Your task to perform on an android device: Search for logitech g502 on walmart, select the first entry, and add it to the cart. Image 0: 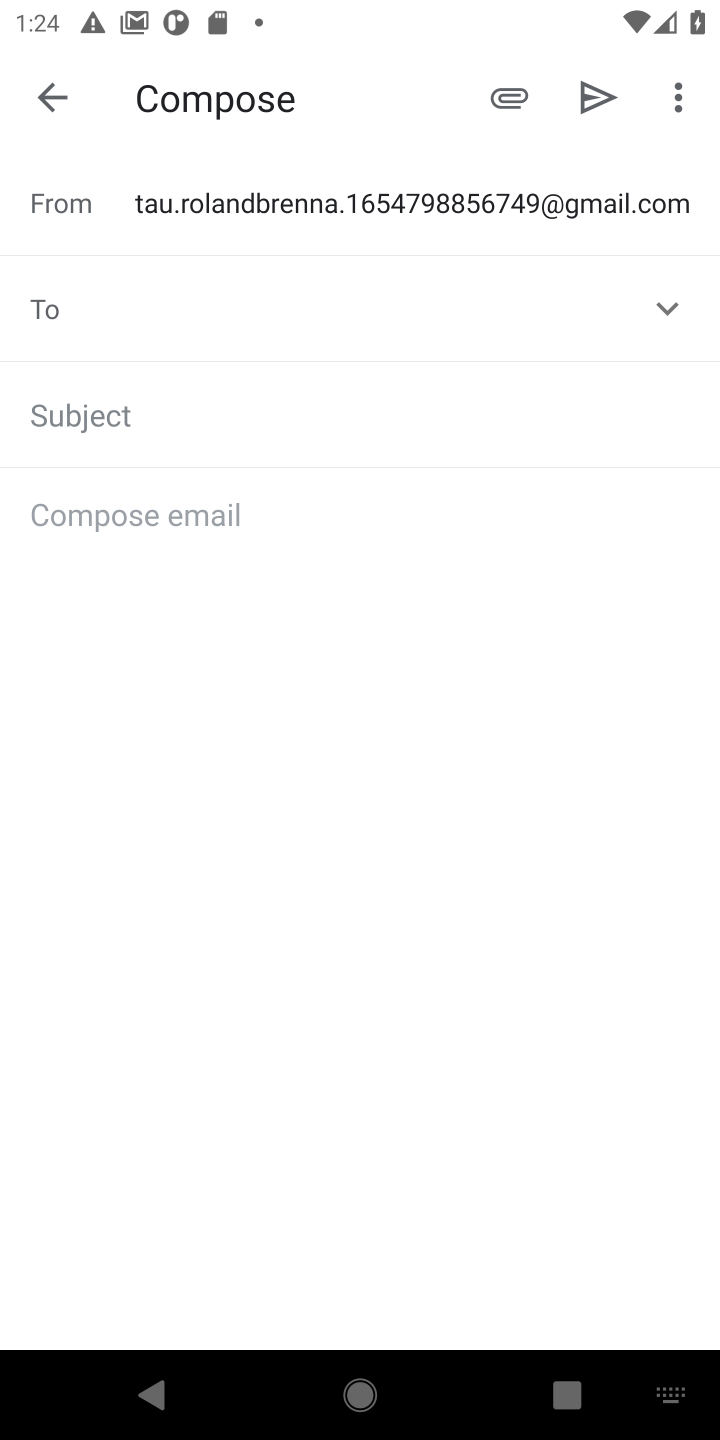
Step 0: press home button
Your task to perform on an android device: Search for logitech g502 on walmart, select the first entry, and add it to the cart. Image 1: 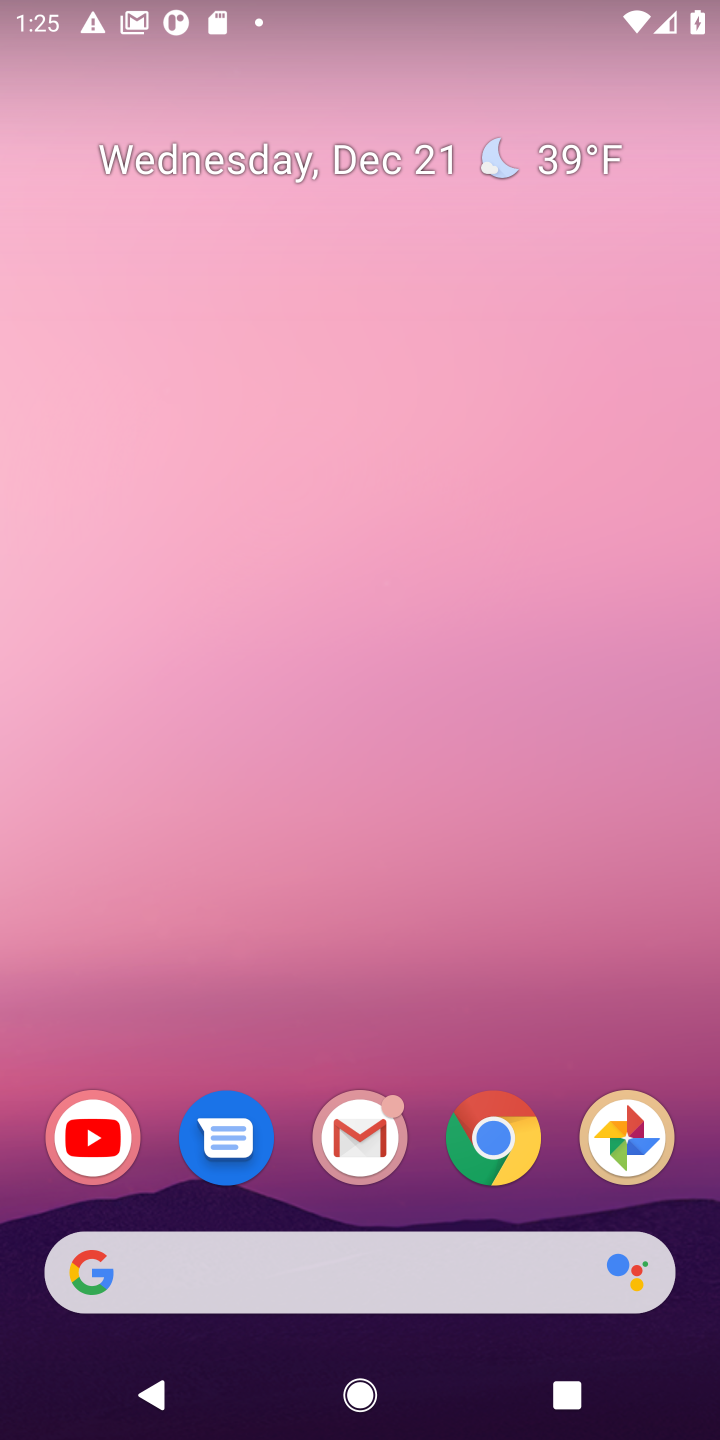
Step 1: click (501, 1134)
Your task to perform on an android device: Search for logitech g502 on walmart, select the first entry, and add it to the cart. Image 2: 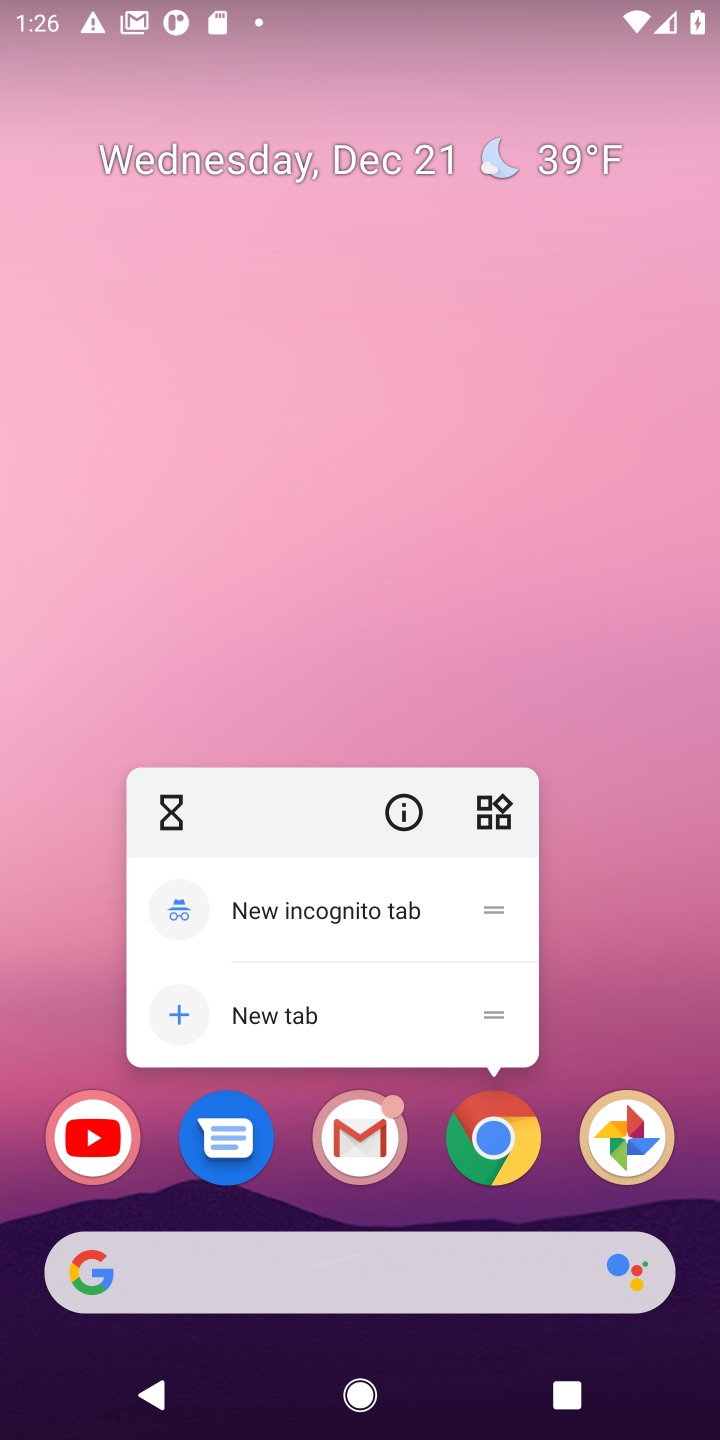
Step 2: click (492, 1119)
Your task to perform on an android device: Search for logitech g502 on walmart, select the first entry, and add it to the cart. Image 3: 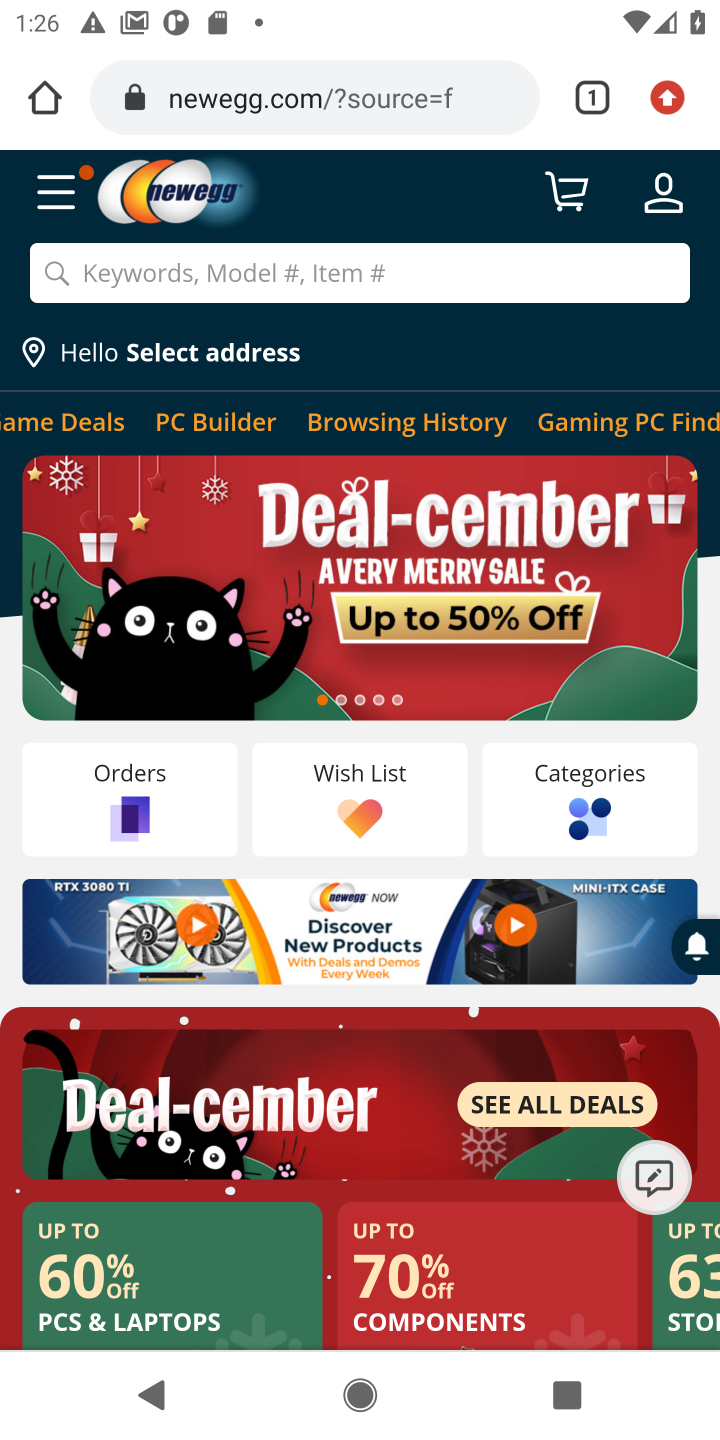
Step 3: click (400, 96)
Your task to perform on an android device: Search for logitech g502 on walmart, select the first entry, and add it to the cart. Image 4: 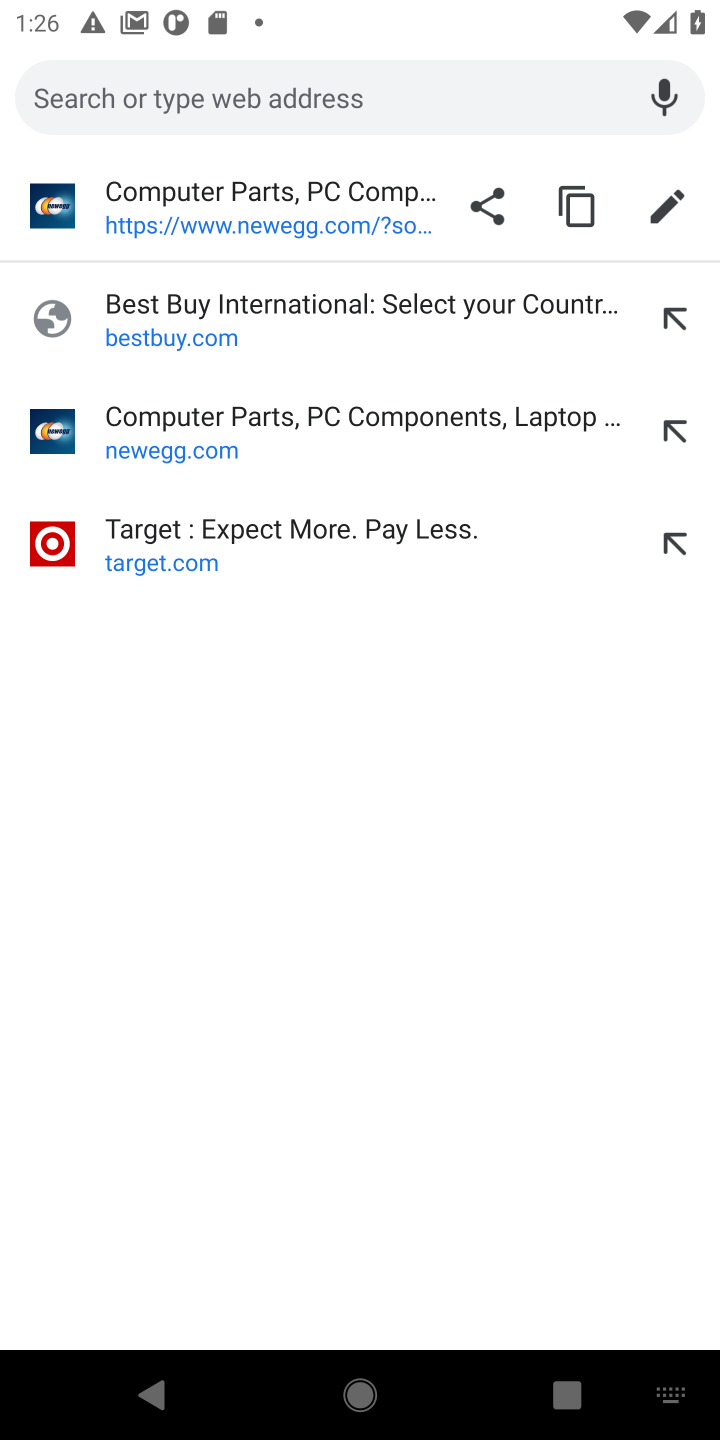
Step 4: type "walmart"
Your task to perform on an android device: Search for logitech g502 on walmart, select the first entry, and add it to the cart. Image 5: 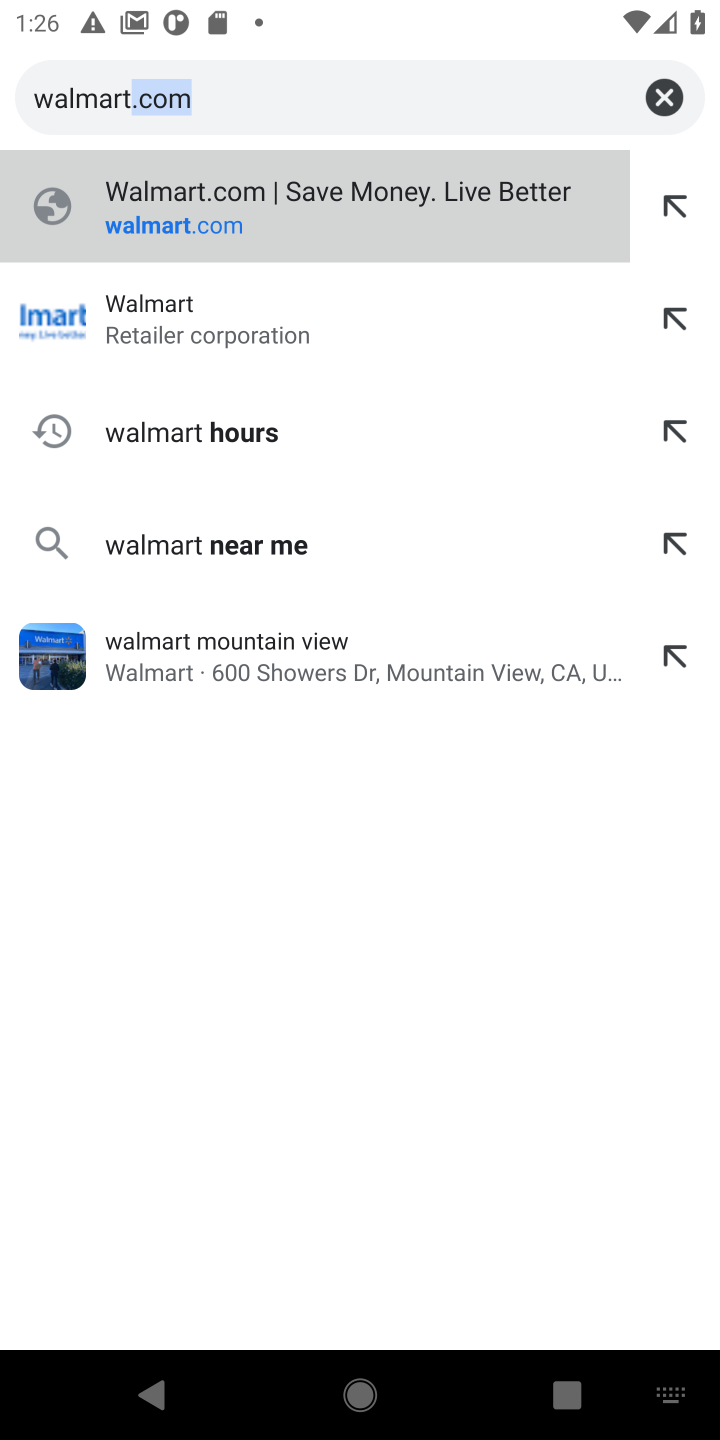
Step 5: click (227, 242)
Your task to perform on an android device: Search for logitech g502 on walmart, select the first entry, and add it to the cart. Image 6: 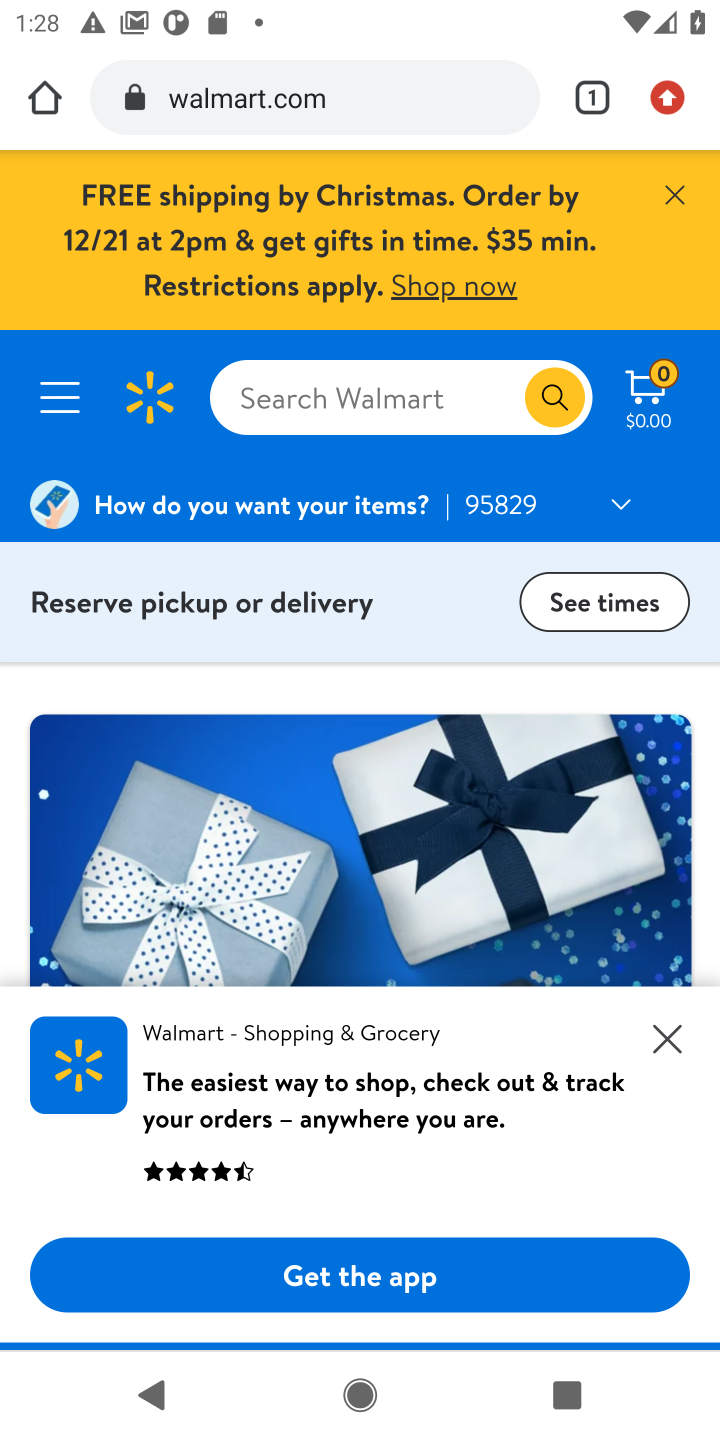
Step 6: click (673, 204)
Your task to perform on an android device: Search for logitech g502 on walmart, select the first entry, and add it to the cart. Image 7: 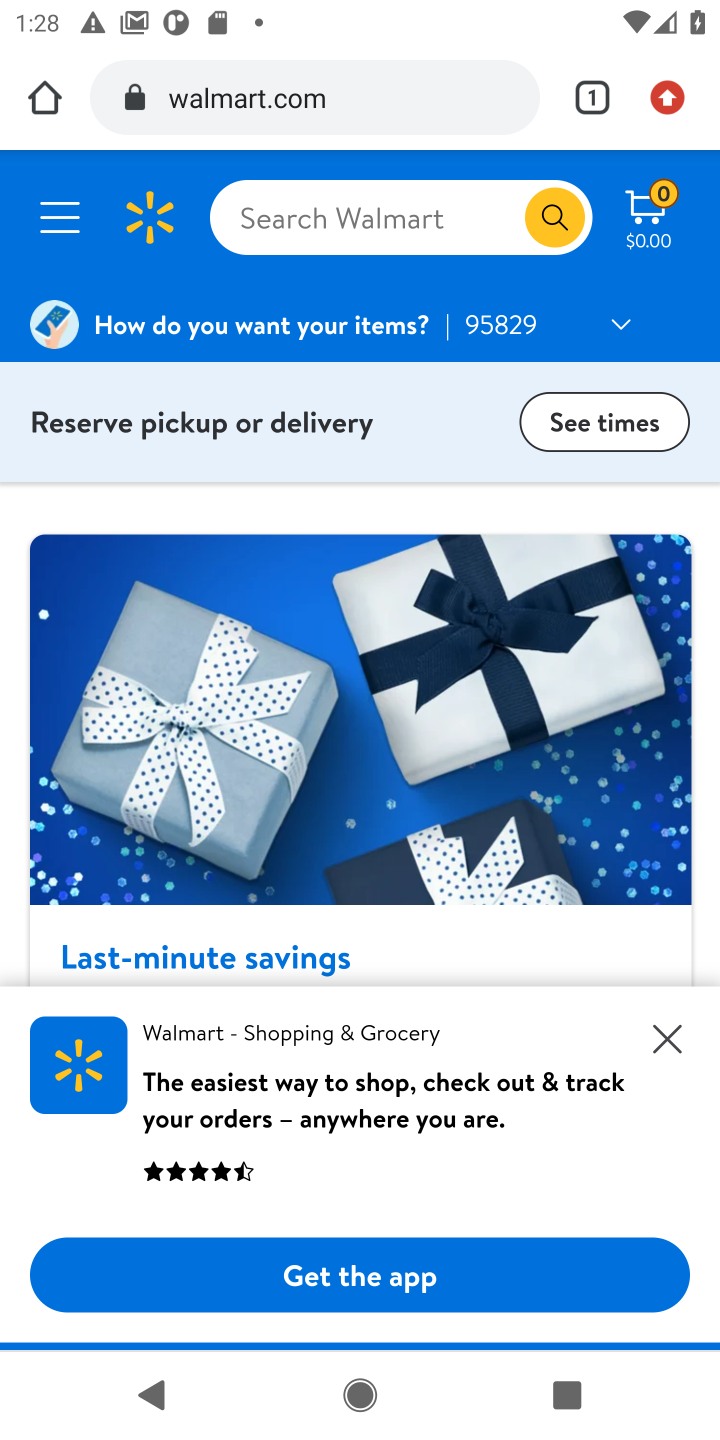
Step 7: task complete